Your task to perform on an android device: What does the iPhone 8 look like on eBay? Image 0: 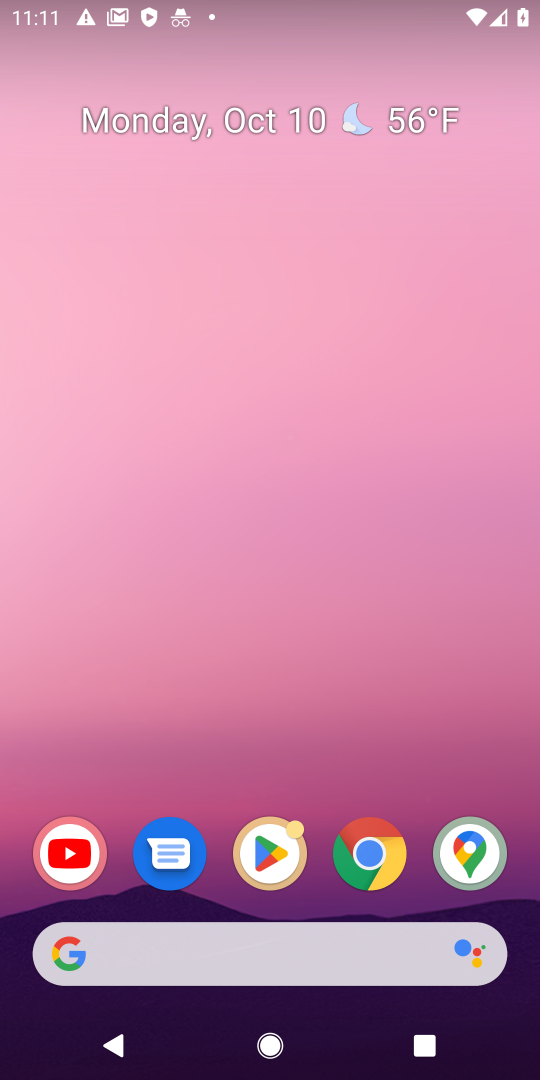
Step 0: press home button
Your task to perform on an android device: What does the iPhone 8 look like on eBay? Image 1: 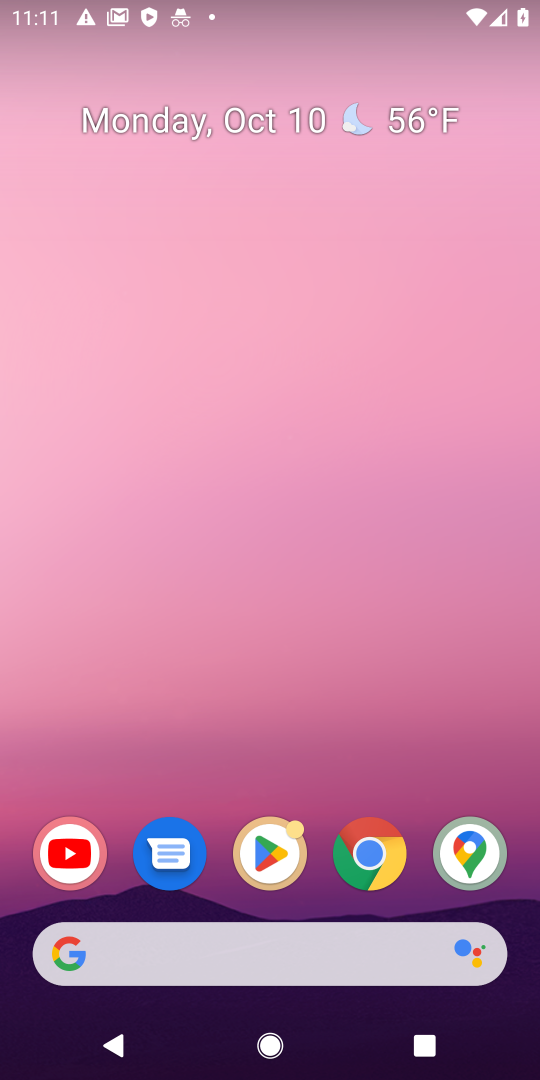
Step 1: click (312, 949)
Your task to perform on an android device: What does the iPhone 8 look like on eBay? Image 2: 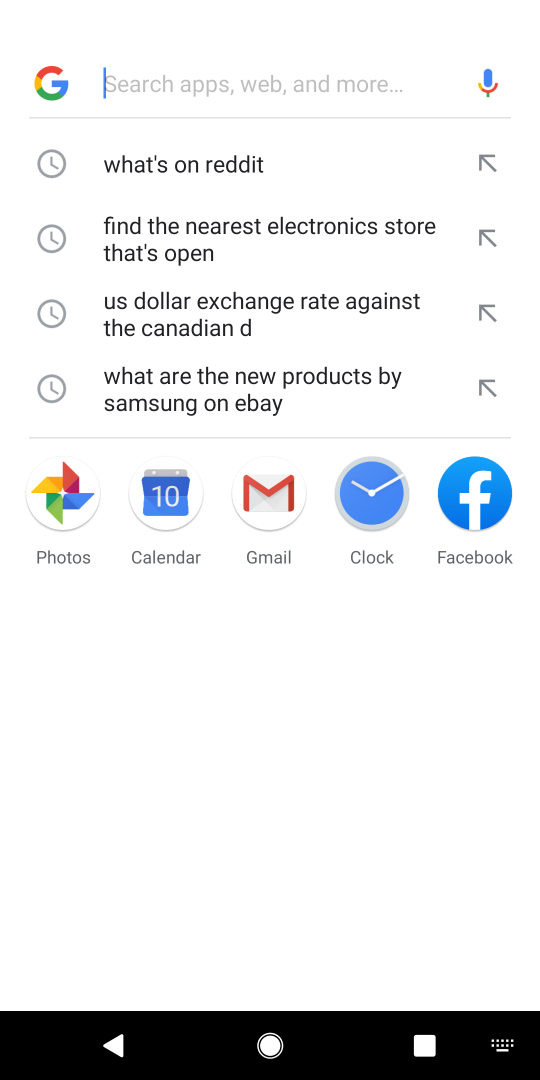
Step 2: type "What does the iPhone 8 look like on eBay"
Your task to perform on an android device: What does the iPhone 8 look like on eBay? Image 3: 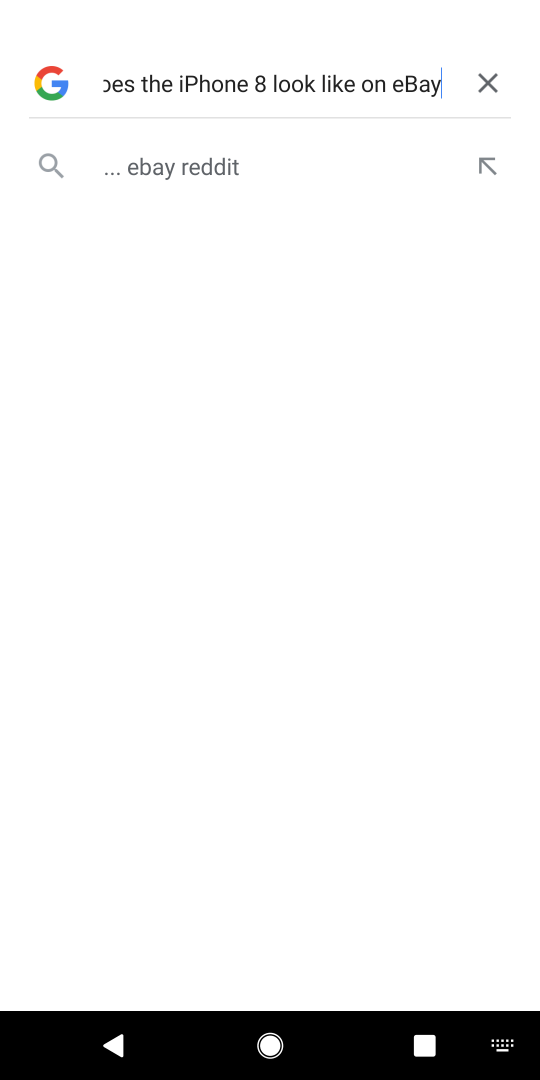
Step 3: press enter
Your task to perform on an android device: What does the iPhone 8 look like on eBay? Image 4: 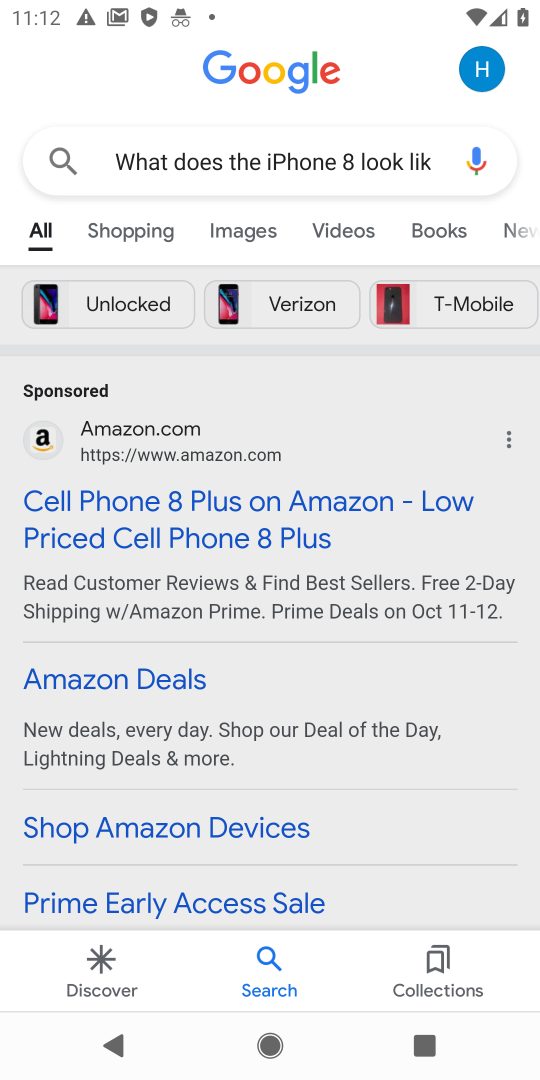
Step 4: drag from (410, 791) to (417, 531)
Your task to perform on an android device: What does the iPhone 8 look like on eBay? Image 5: 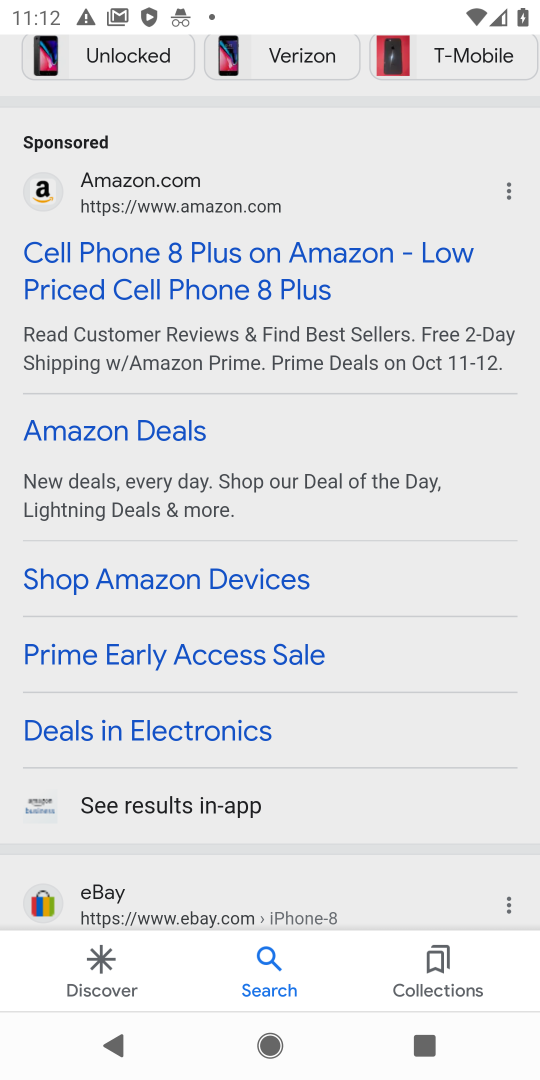
Step 5: drag from (407, 711) to (440, 412)
Your task to perform on an android device: What does the iPhone 8 look like on eBay? Image 6: 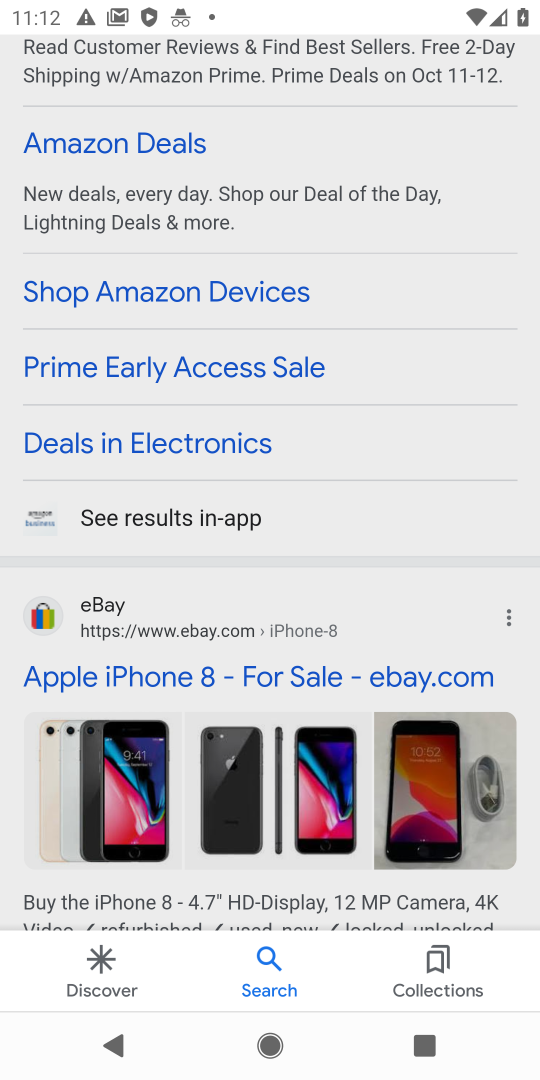
Step 6: click (362, 679)
Your task to perform on an android device: What does the iPhone 8 look like on eBay? Image 7: 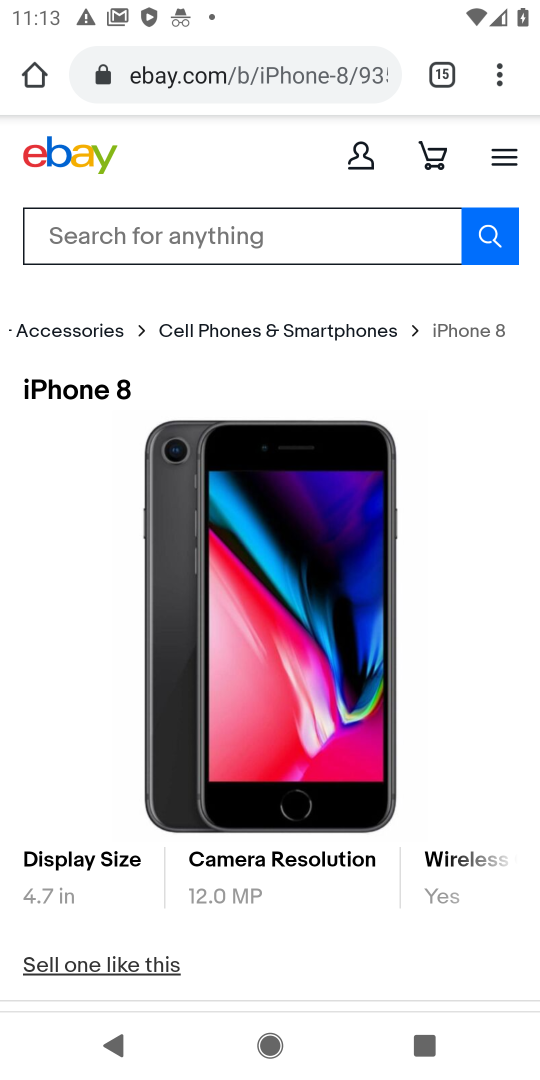
Step 7: task complete